Your task to perform on an android device: change the clock display to digital Image 0: 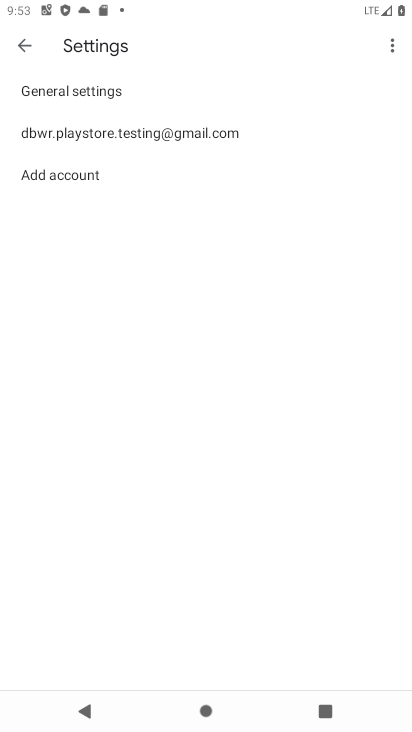
Step 0: press home button
Your task to perform on an android device: change the clock display to digital Image 1: 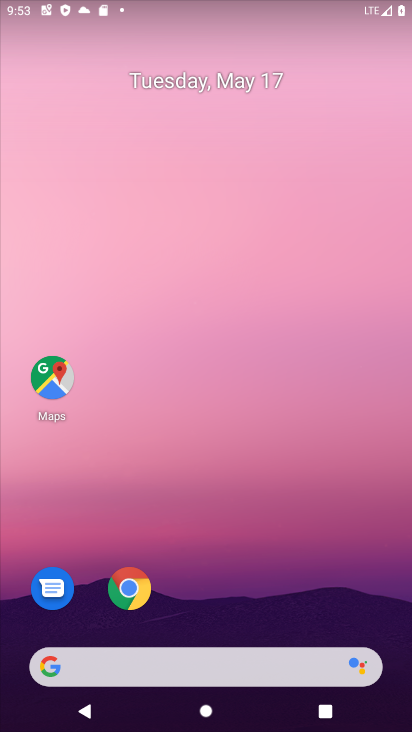
Step 1: drag from (205, 566) to (349, 73)
Your task to perform on an android device: change the clock display to digital Image 2: 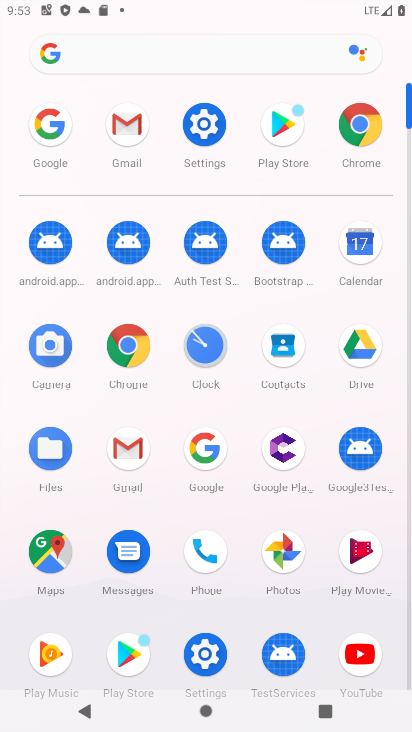
Step 2: click (209, 356)
Your task to perform on an android device: change the clock display to digital Image 3: 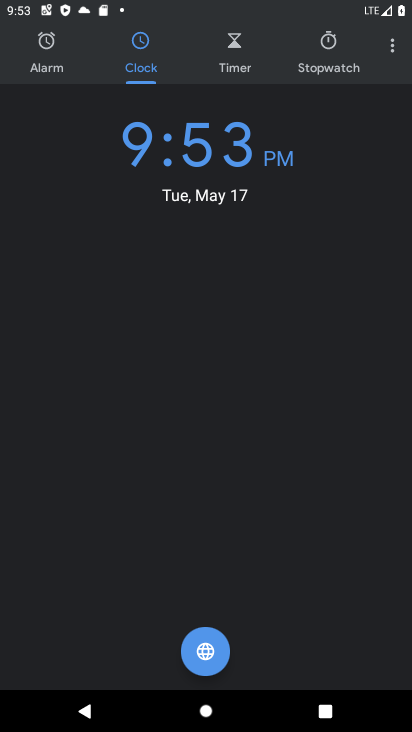
Step 3: click (395, 52)
Your task to perform on an android device: change the clock display to digital Image 4: 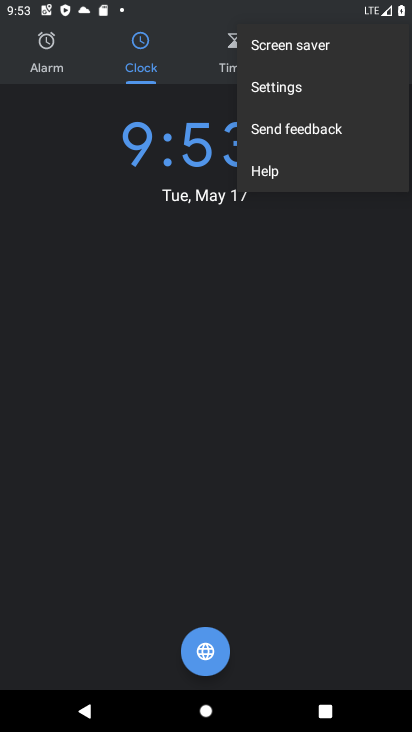
Step 4: click (276, 92)
Your task to perform on an android device: change the clock display to digital Image 5: 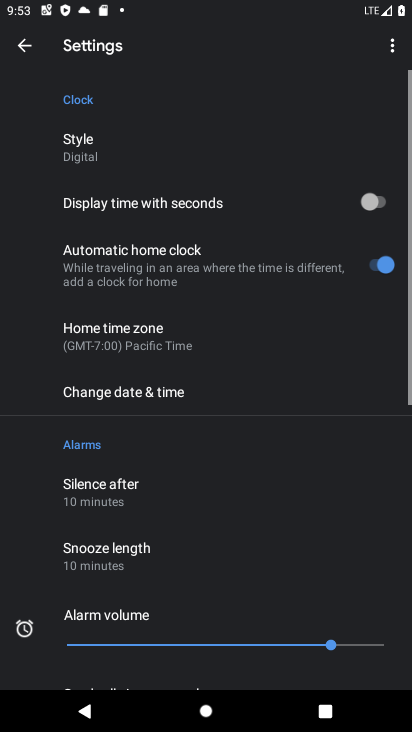
Step 5: click (111, 148)
Your task to perform on an android device: change the clock display to digital Image 6: 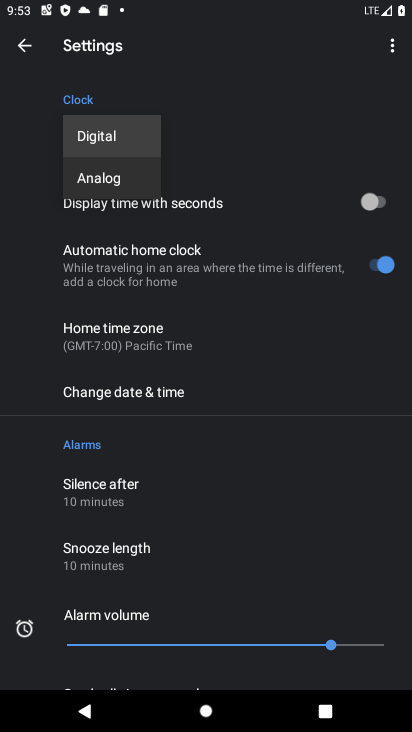
Step 6: click (108, 143)
Your task to perform on an android device: change the clock display to digital Image 7: 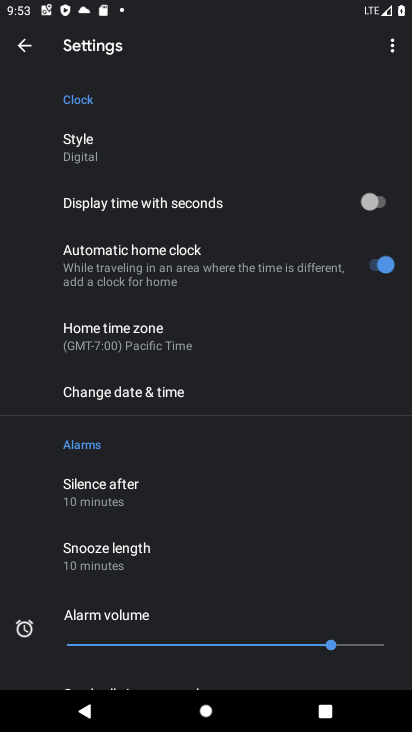
Step 7: task complete